Your task to perform on an android device: turn on airplane mode Image 0: 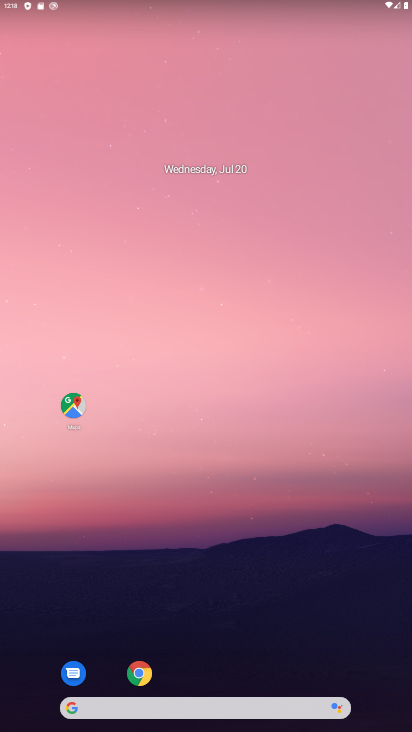
Step 0: drag from (206, 662) to (158, 86)
Your task to perform on an android device: turn on airplane mode Image 1: 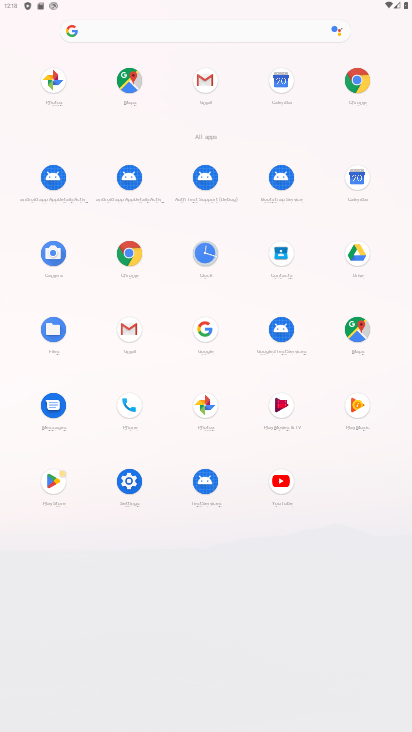
Step 1: drag from (320, 4) to (320, 345)
Your task to perform on an android device: turn on airplane mode Image 2: 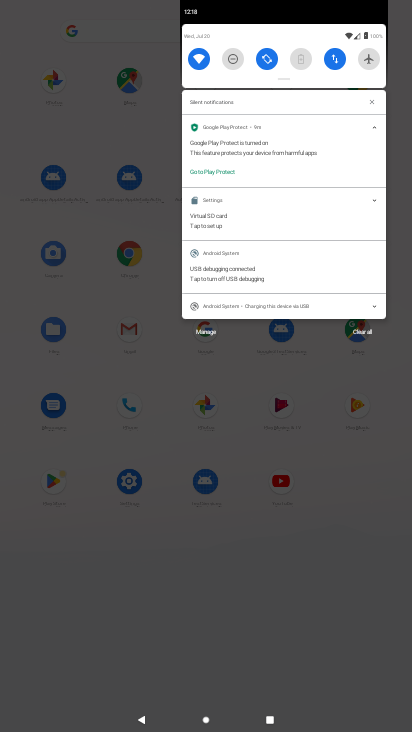
Step 2: drag from (287, 71) to (312, 423)
Your task to perform on an android device: turn on airplane mode Image 3: 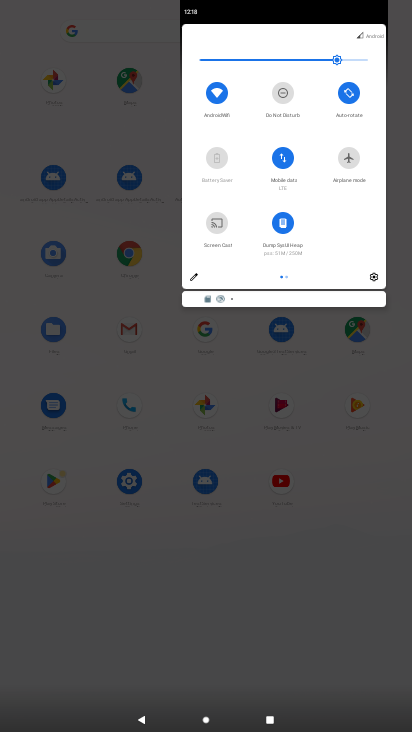
Step 3: click (351, 165)
Your task to perform on an android device: turn on airplane mode Image 4: 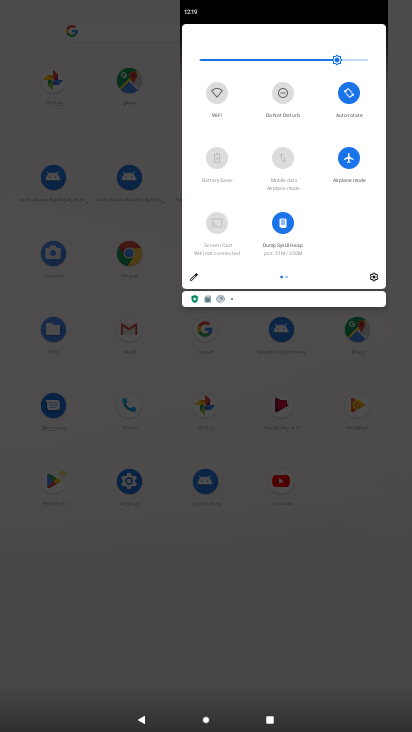
Step 4: task complete